Your task to perform on an android device: open app "File Manager" (install if not already installed) Image 0: 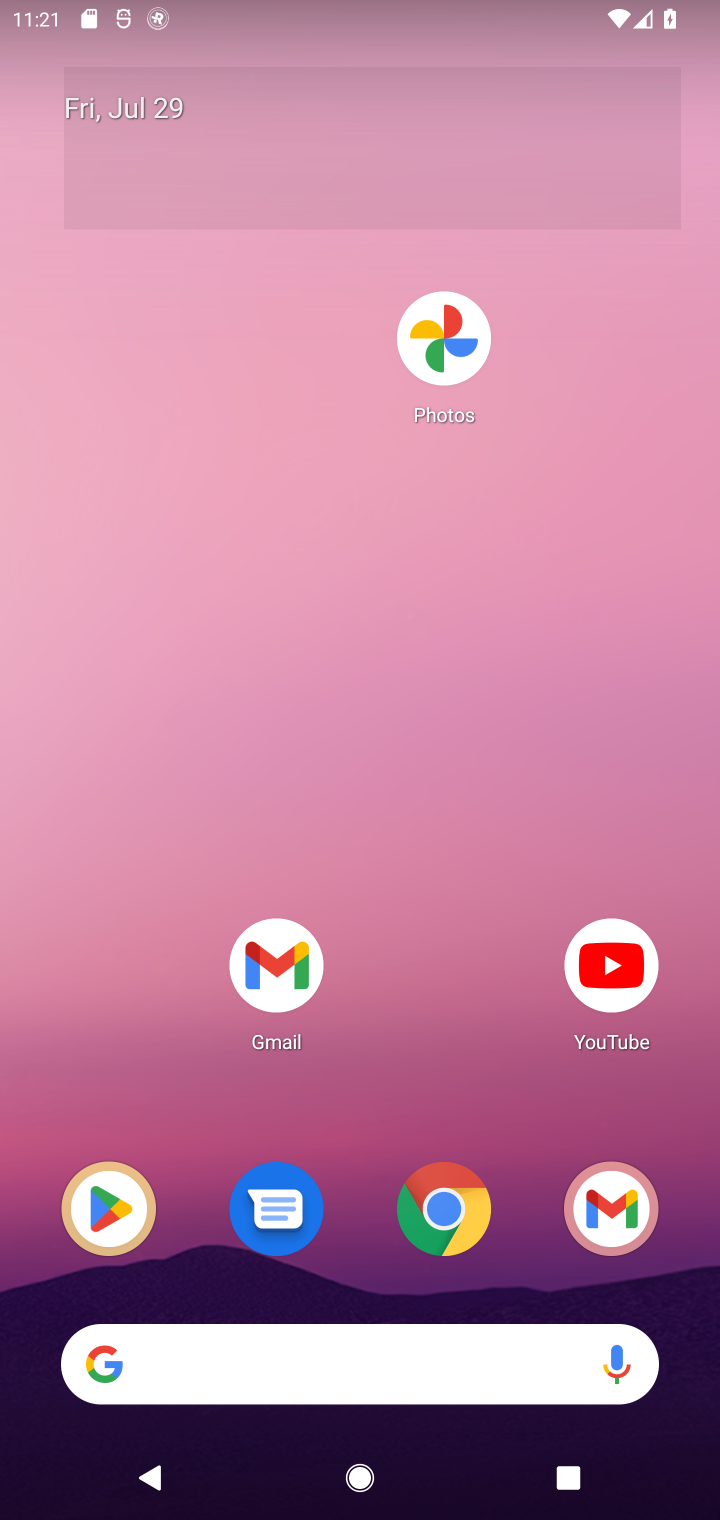
Step 0: drag from (482, 1019) to (394, 3)
Your task to perform on an android device: open app "File Manager" (install if not already installed) Image 1: 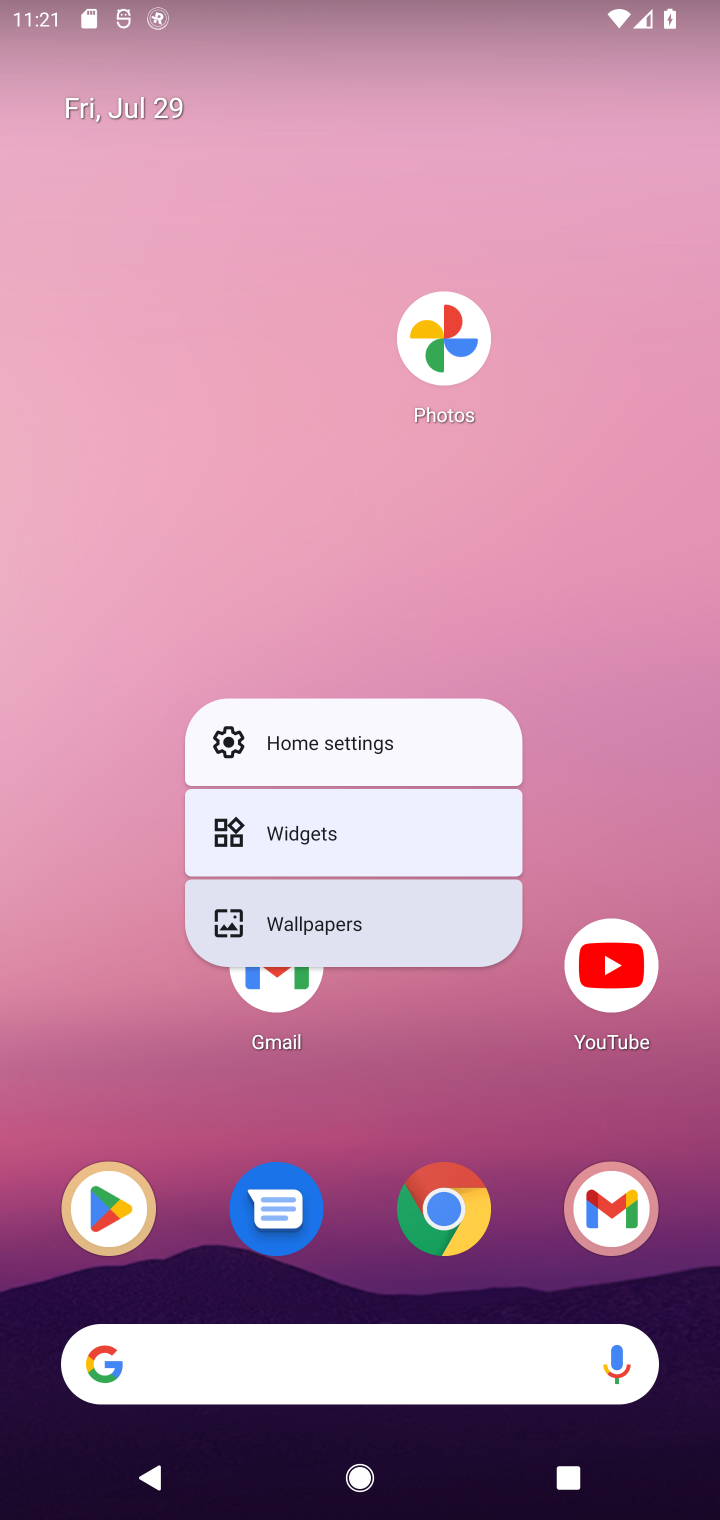
Step 1: click (105, 596)
Your task to perform on an android device: open app "File Manager" (install if not already installed) Image 2: 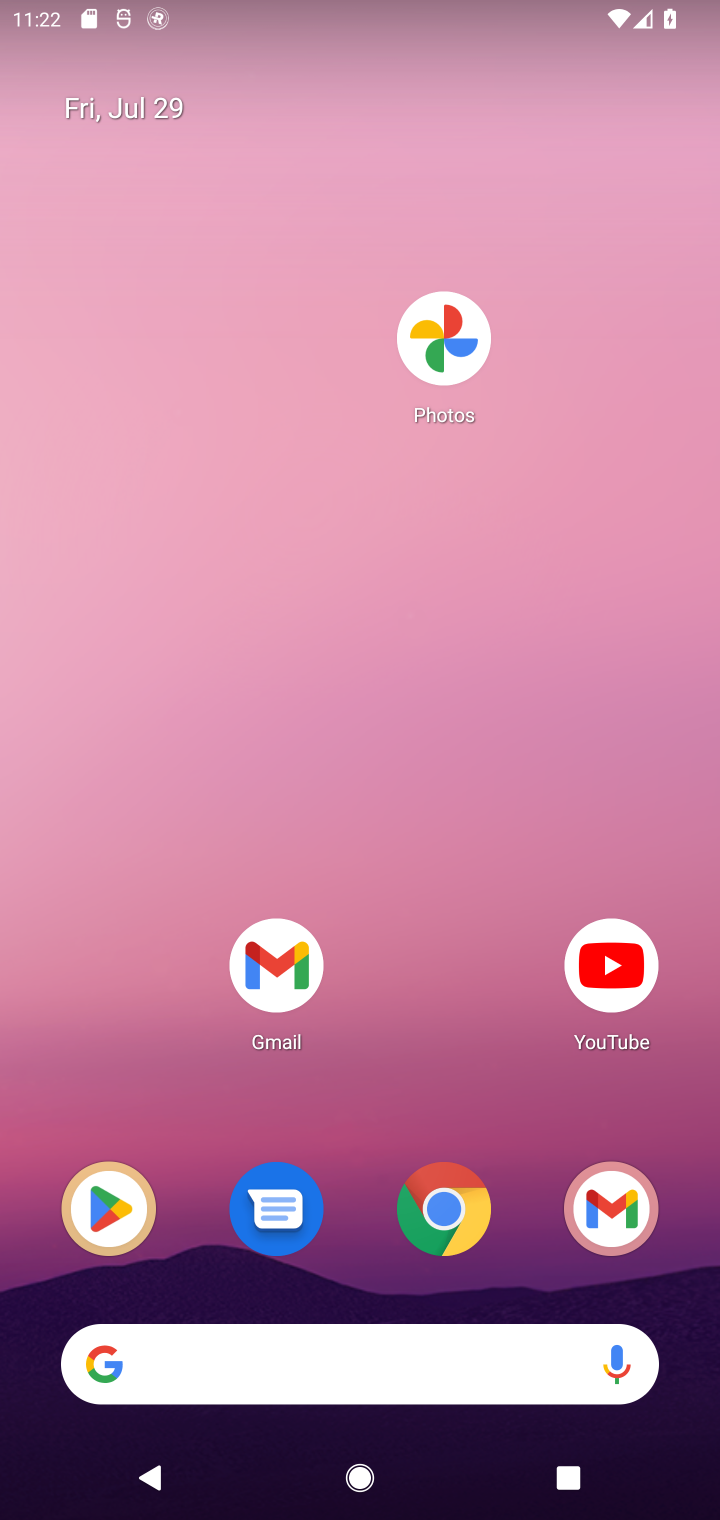
Step 2: drag from (462, 853) to (562, 1)
Your task to perform on an android device: open app "File Manager" (install if not already installed) Image 3: 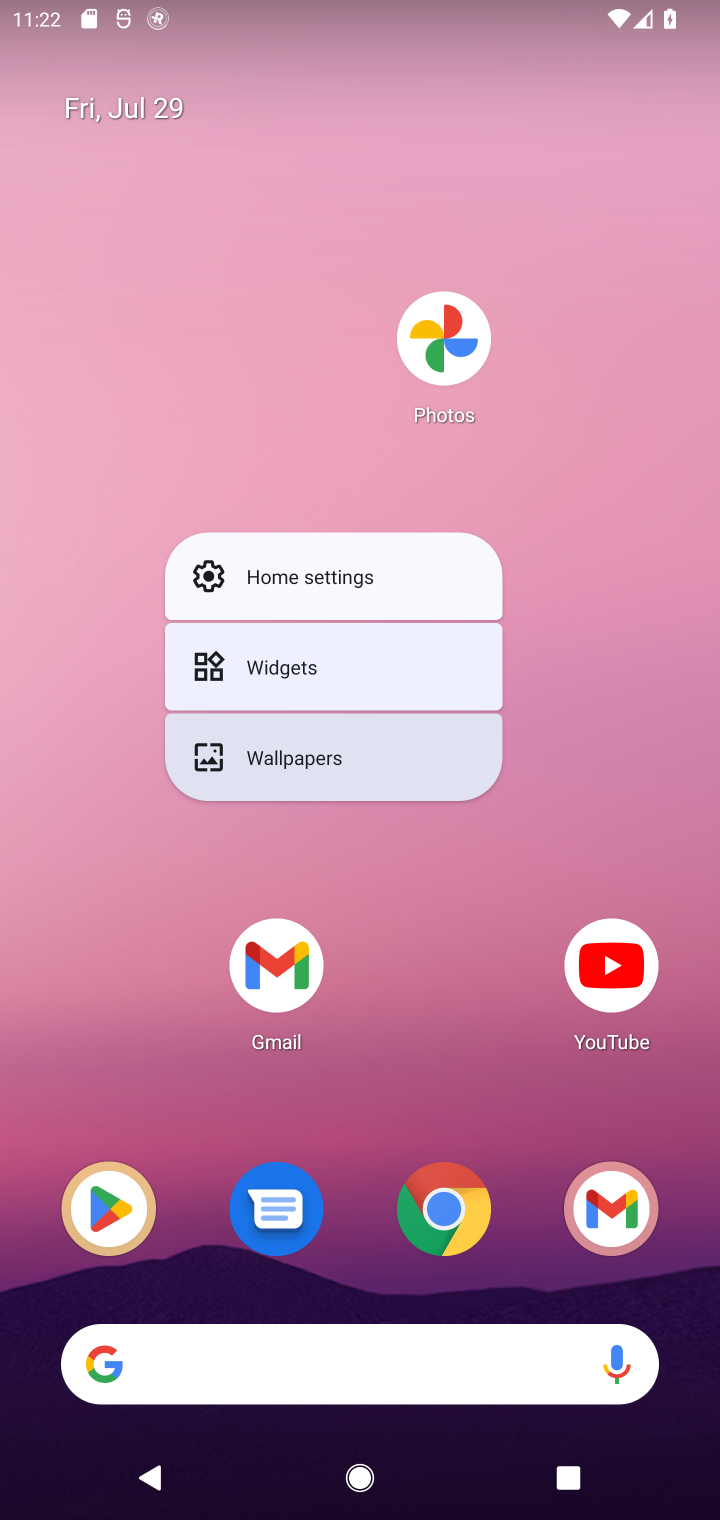
Step 3: click (602, 794)
Your task to perform on an android device: open app "File Manager" (install if not already installed) Image 4: 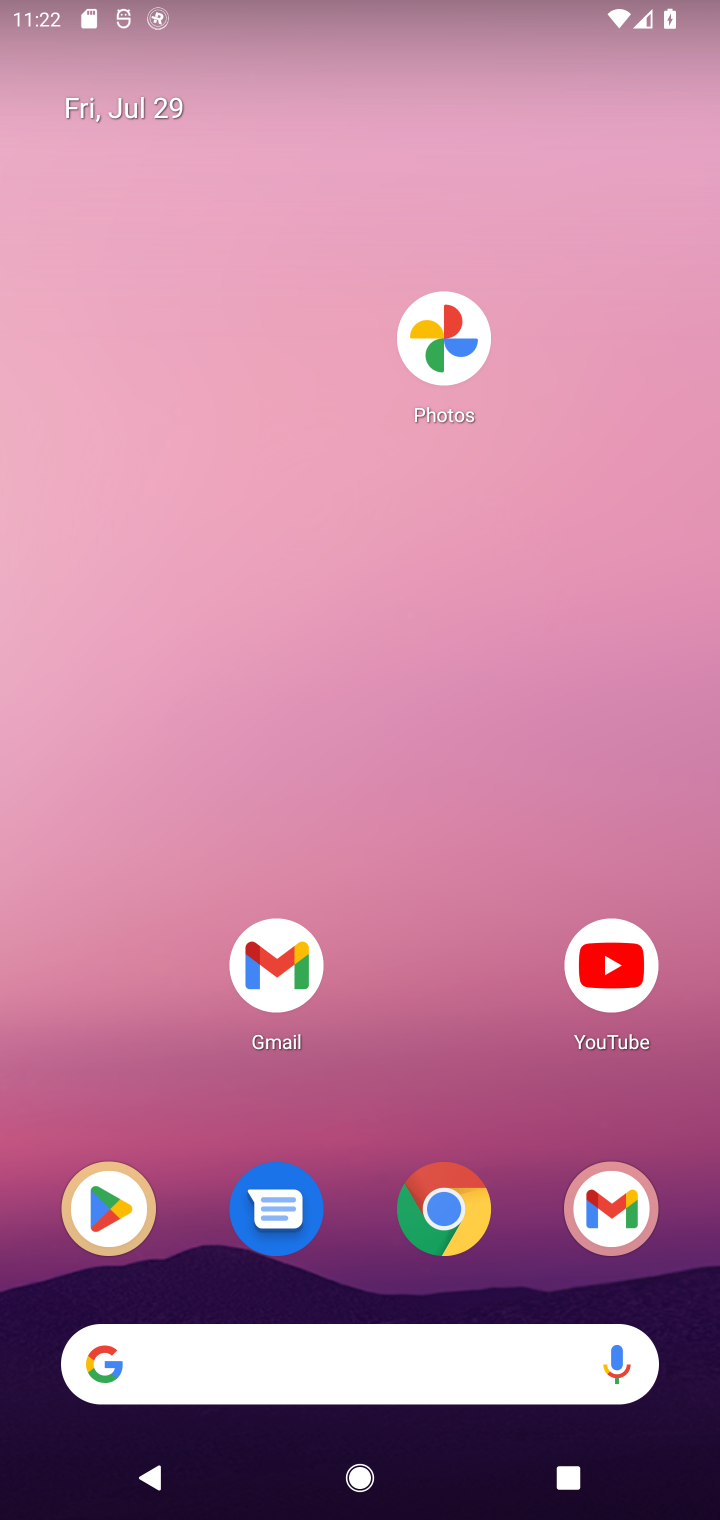
Step 4: drag from (659, 1154) to (594, 176)
Your task to perform on an android device: open app "File Manager" (install if not already installed) Image 5: 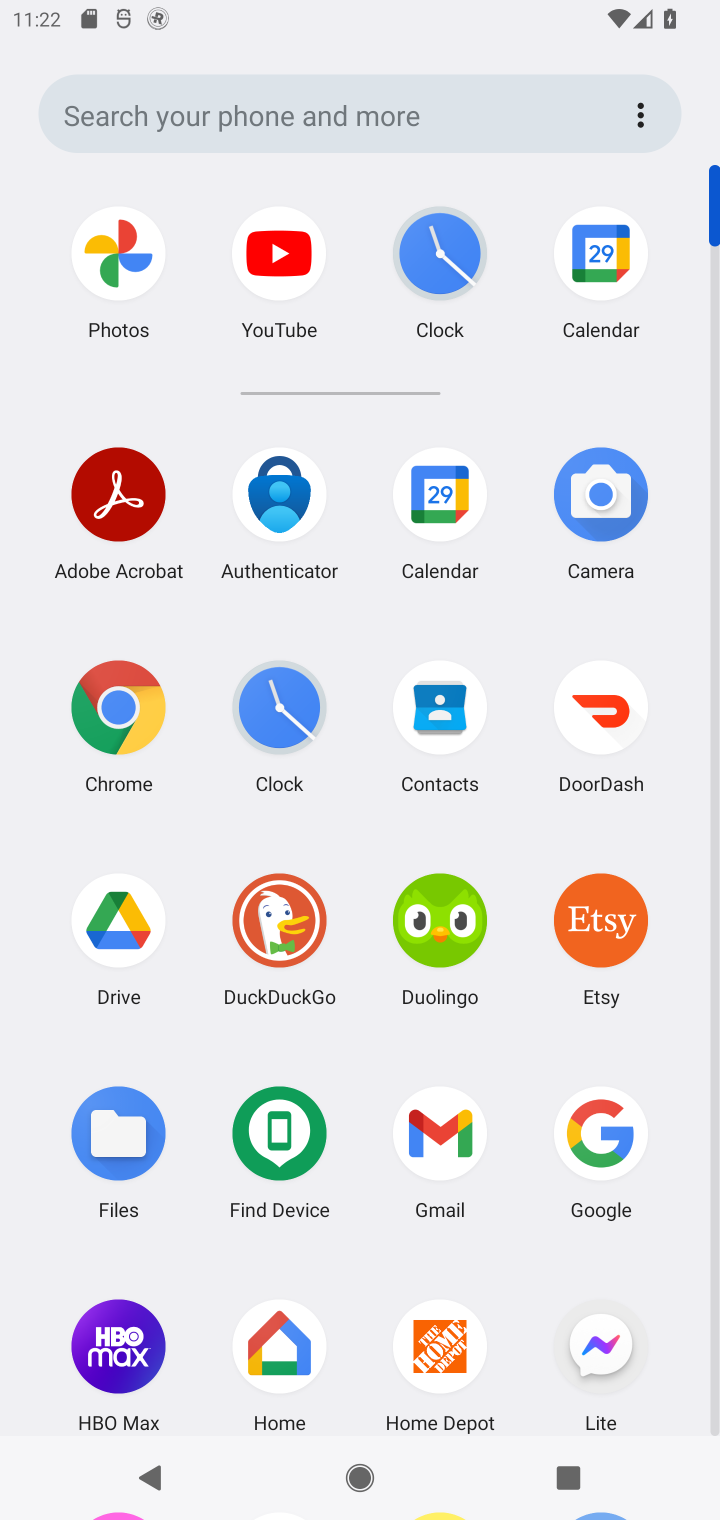
Step 5: drag from (530, 1249) to (532, 491)
Your task to perform on an android device: open app "File Manager" (install if not already installed) Image 6: 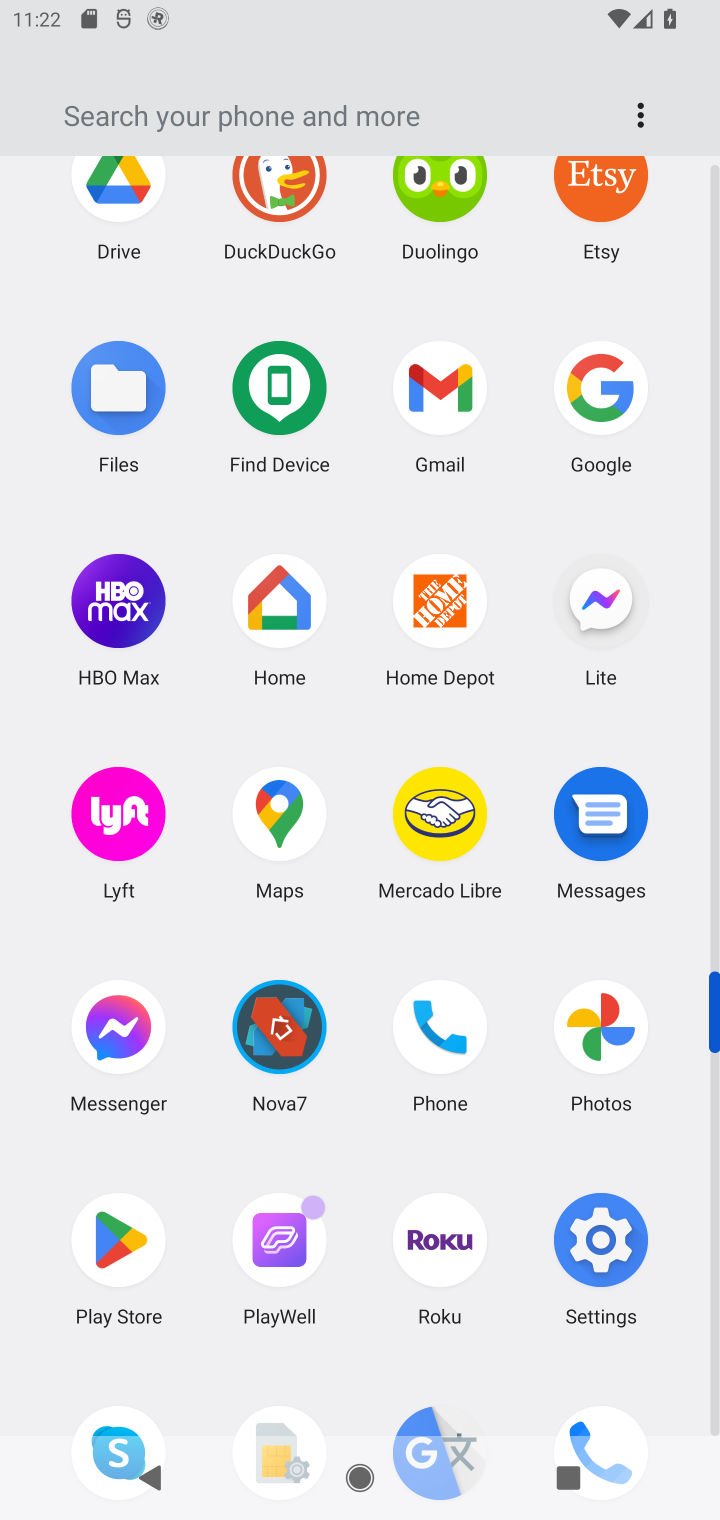
Step 6: click (114, 1250)
Your task to perform on an android device: open app "File Manager" (install if not already installed) Image 7: 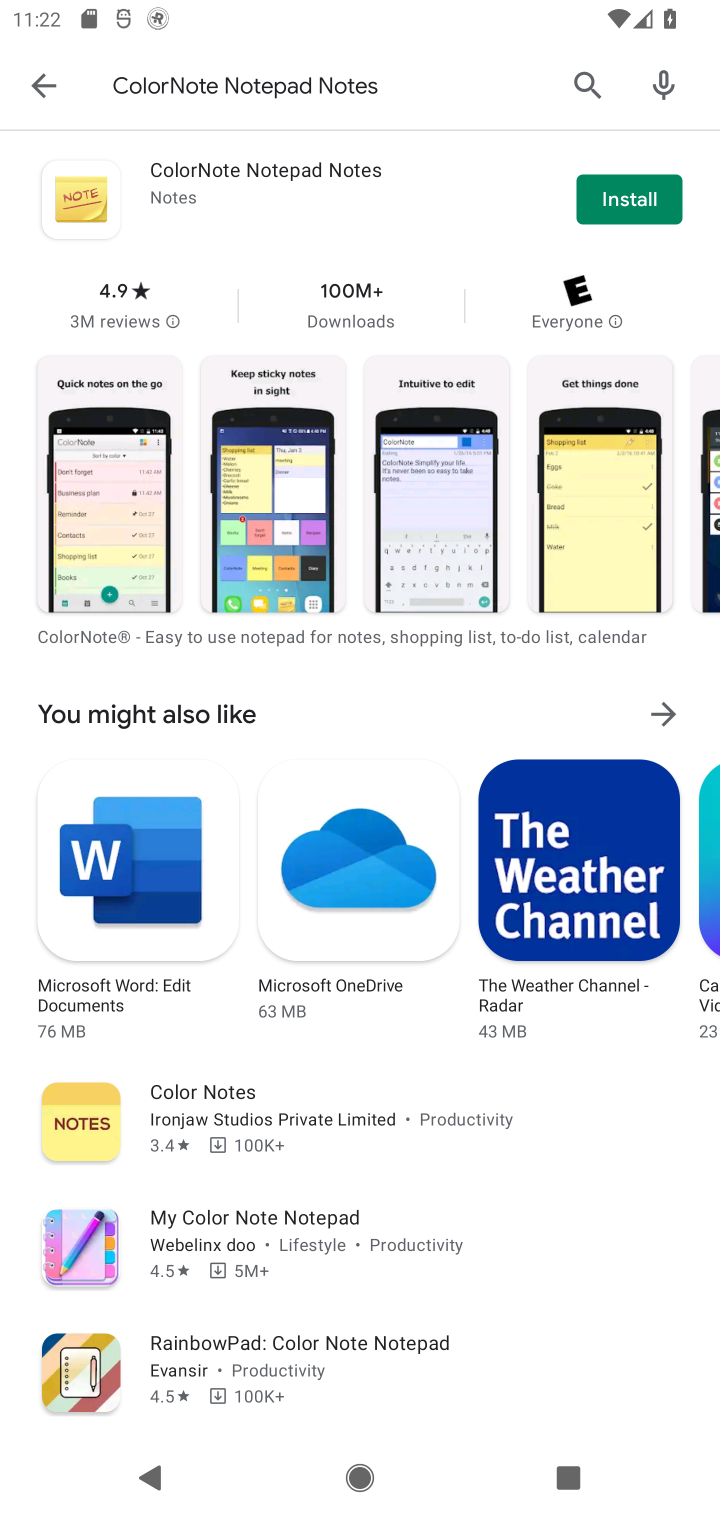
Step 7: click (397, 96)
Your task to perform on an android device: open app "File Manager" (install if not already installed) Image 8: 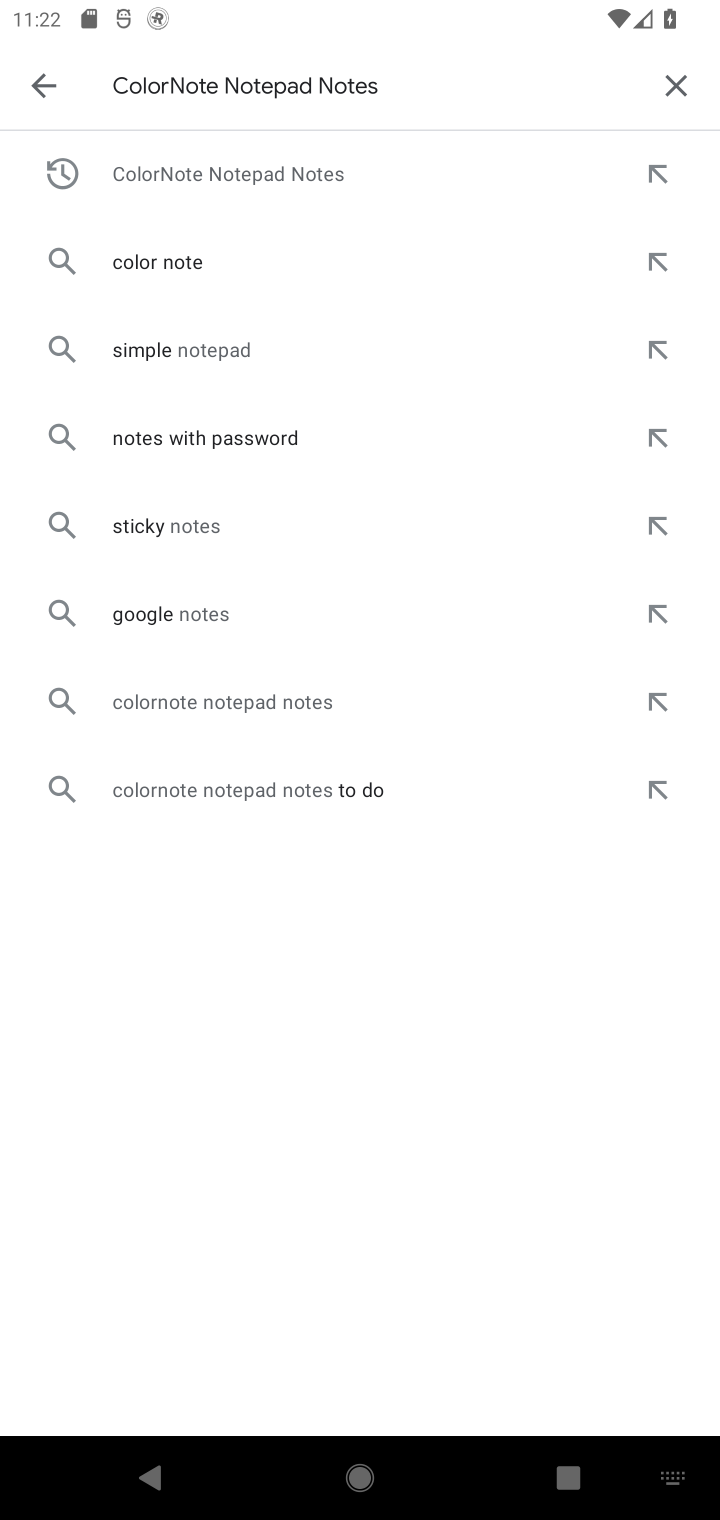
Step 8: click (690, 75)
Your task to perform on an android device: open app "File Manager" (install if not already installed) Image 9: 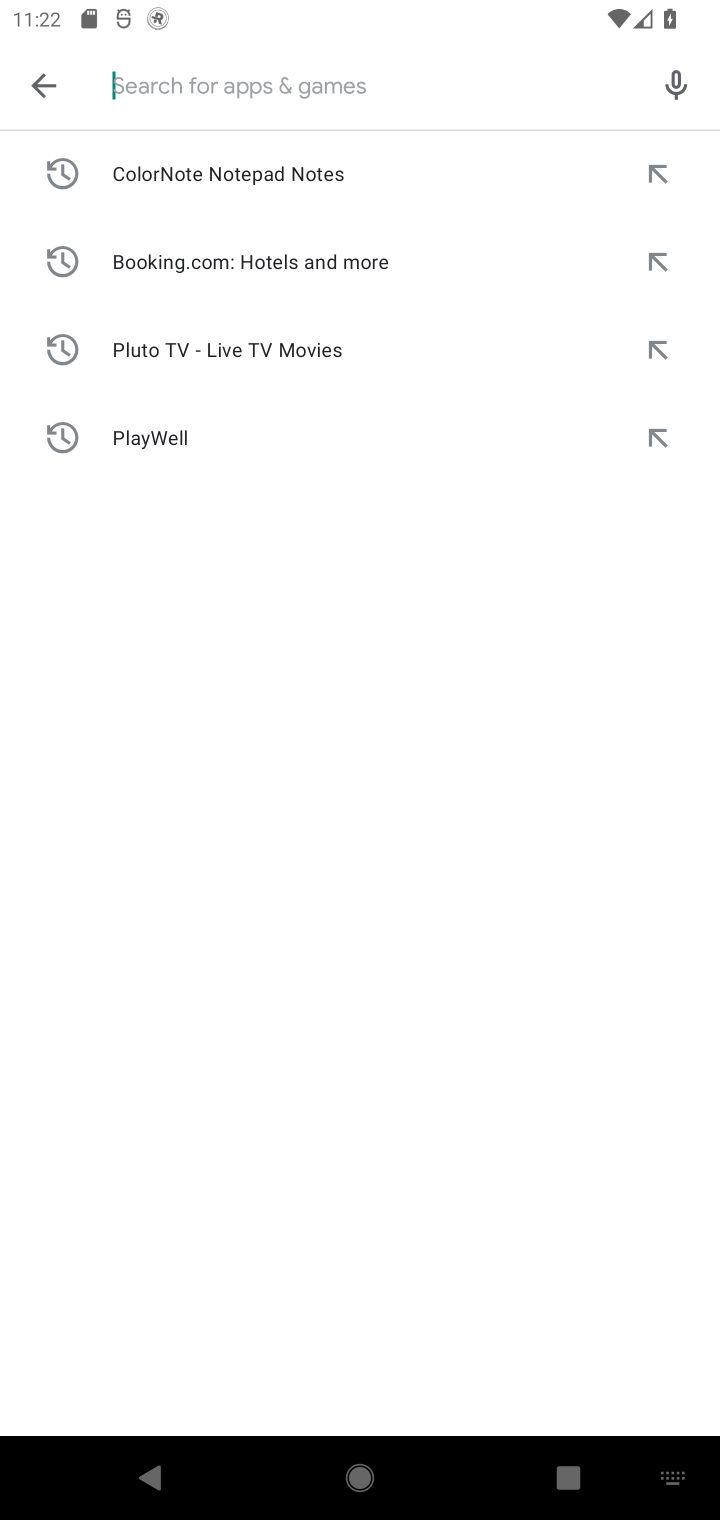
Step 9: type "File Manager"
Your task to perform on an android device: open app "File Manager" (install if not already installed) Image 10: 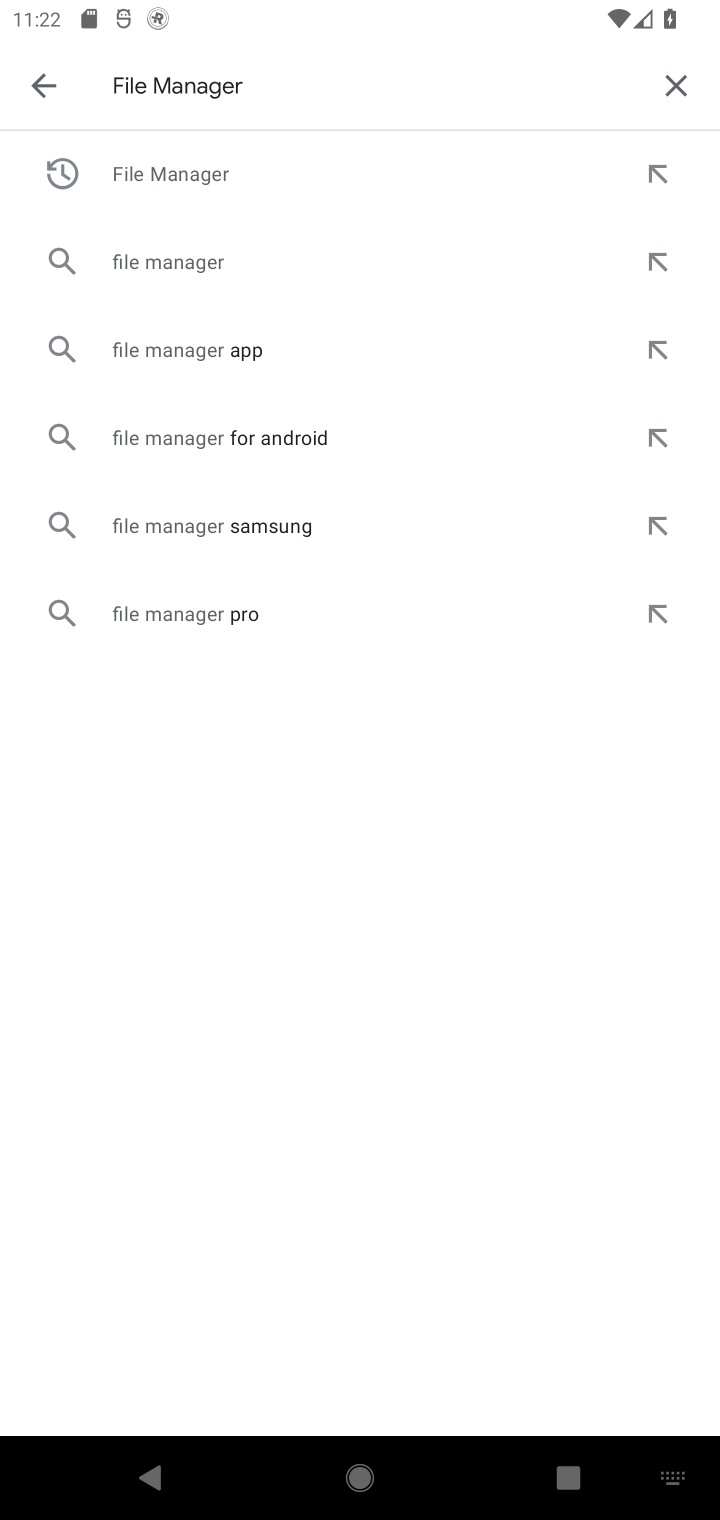
Step 10: press enter
Your task to perform on an android device: open app "File Manager" (install if not already installed) Image 11: 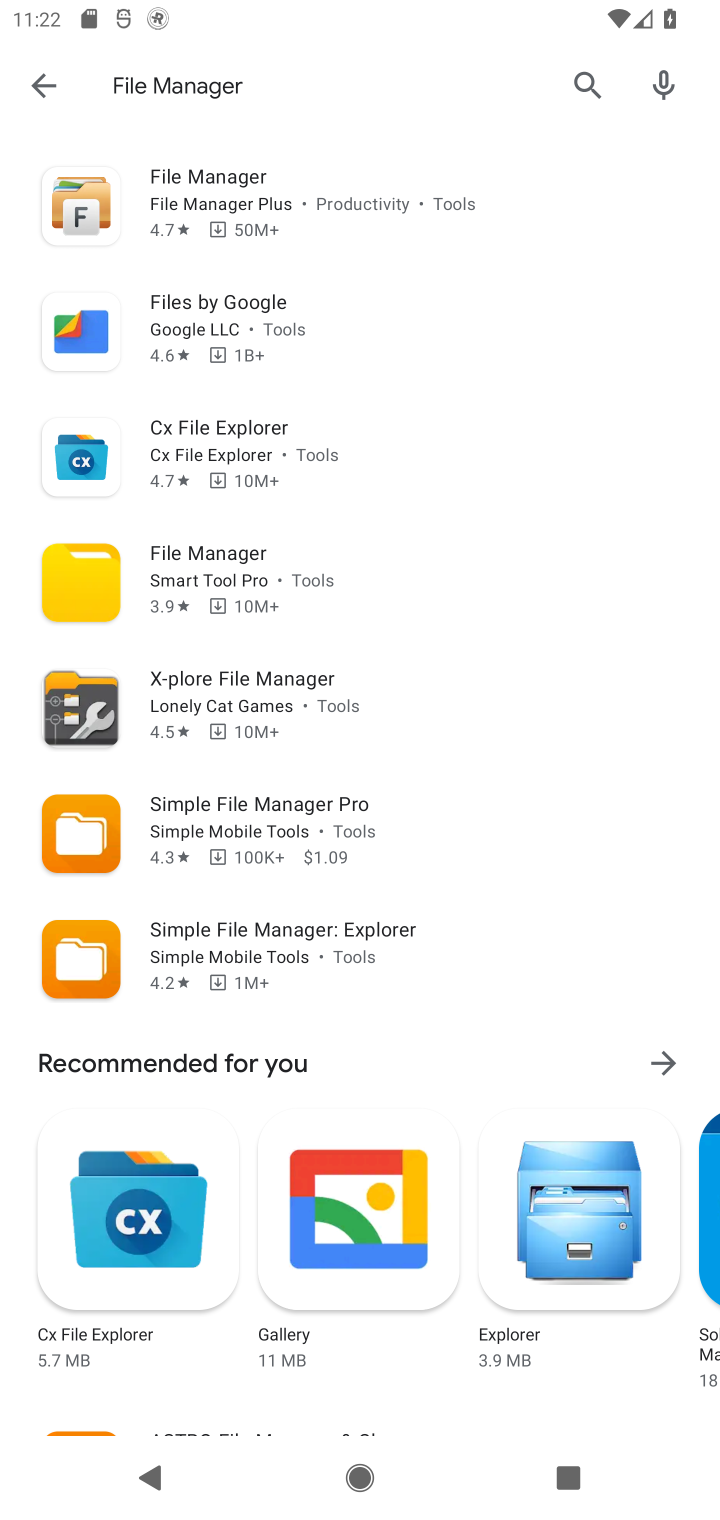
Step 11: click (232, 192)
Your task to perform on an android device: open app "File Manager" (install if not already installed) Image 12: 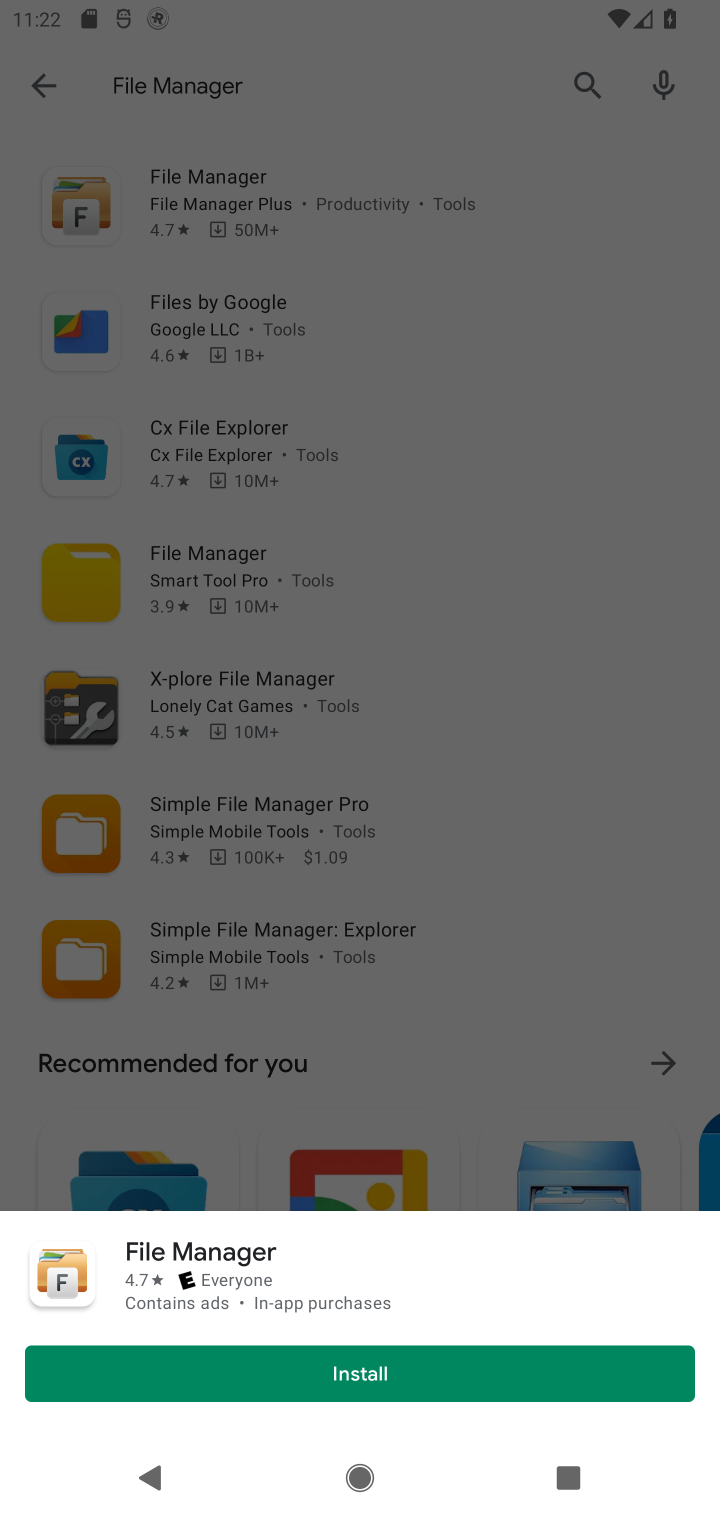
Step 12: click (427, 1376)
Your task to perform on an android device: open app "File Manager" (install if not already installed) Image 13: 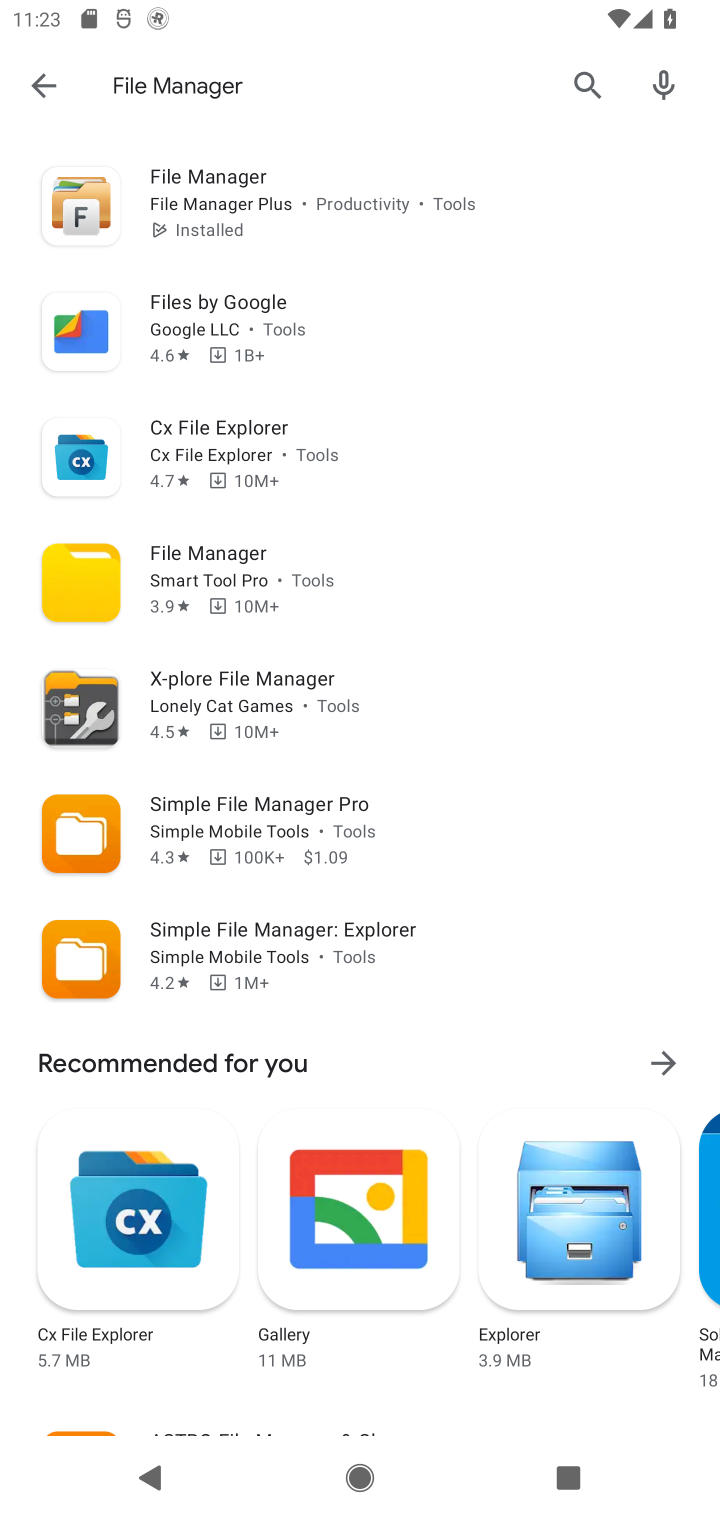
Step 13: click (232, 170)
Your task to perform on an android device: open app "File Manager" (install if not already installed) Image 14: 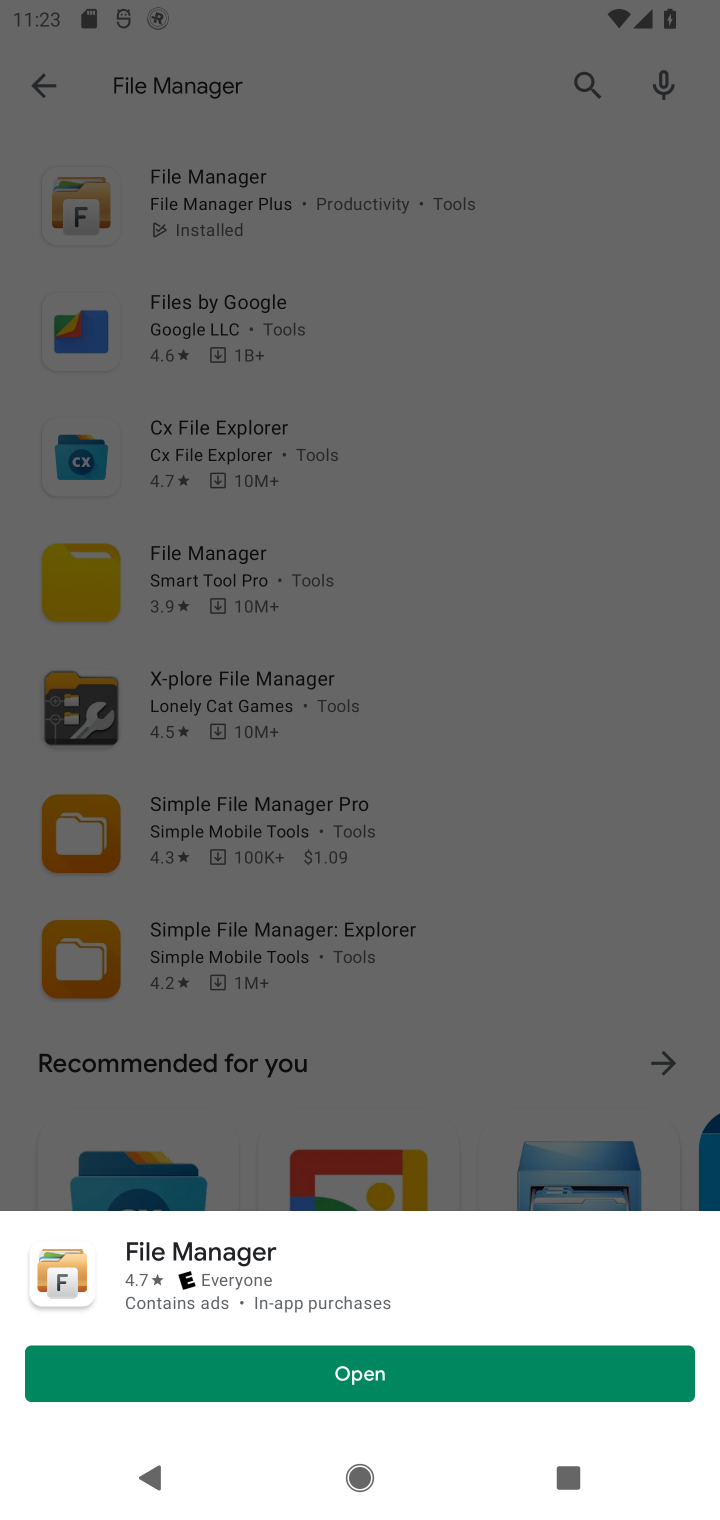
Step 14: click (629, 1360)
Your task to perform on an android device: open app "File Manager" (install if not already installed) Image 15: 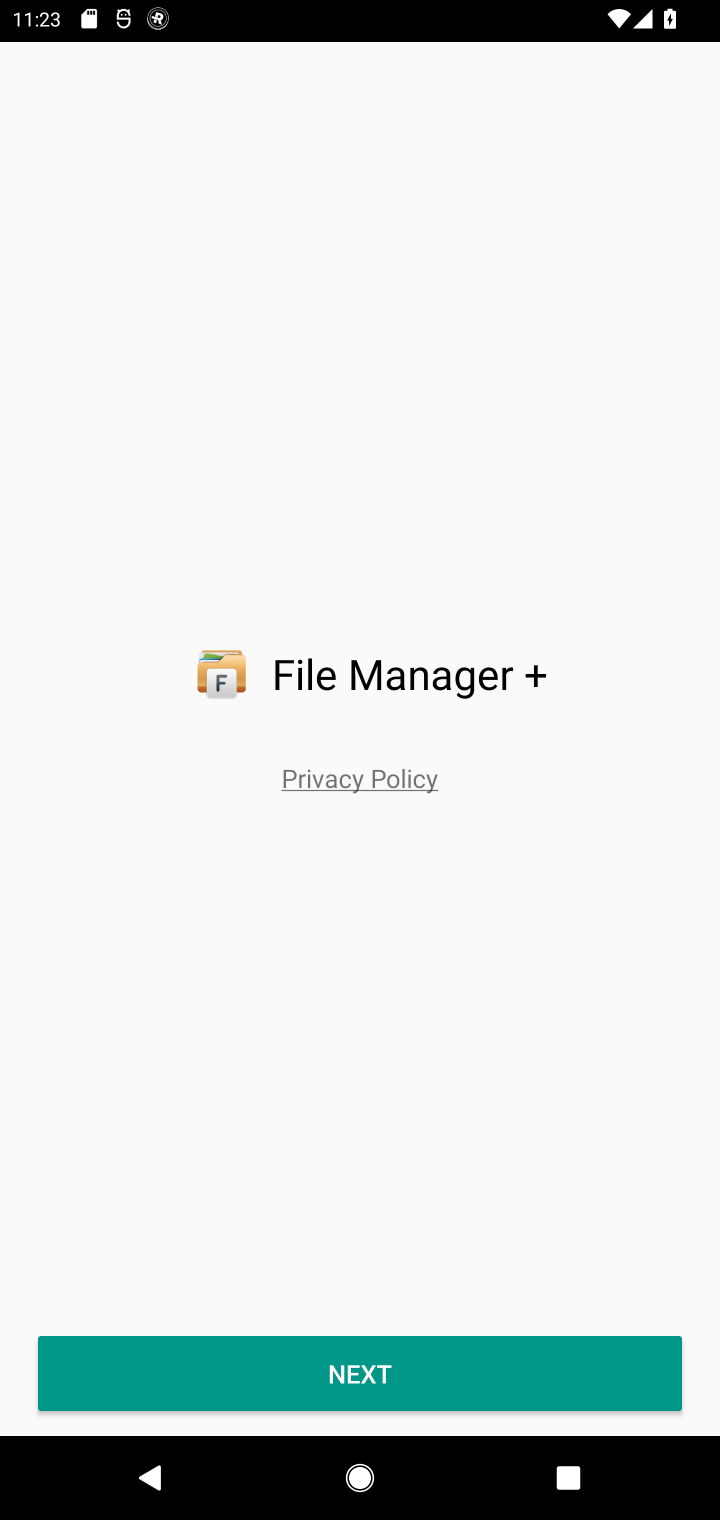
Step 15: task complete